Your task to perform on an android device: allow cookies in the chrome app Image 0: 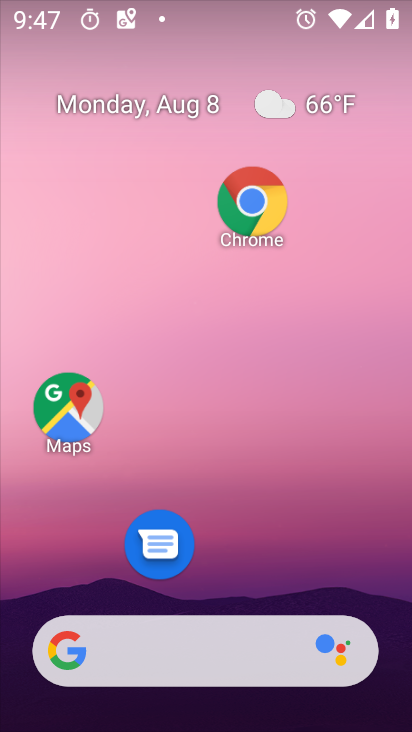
Step 0: press home button
Your task to perform on an android device: allow cookies in the chrome app Image 1: 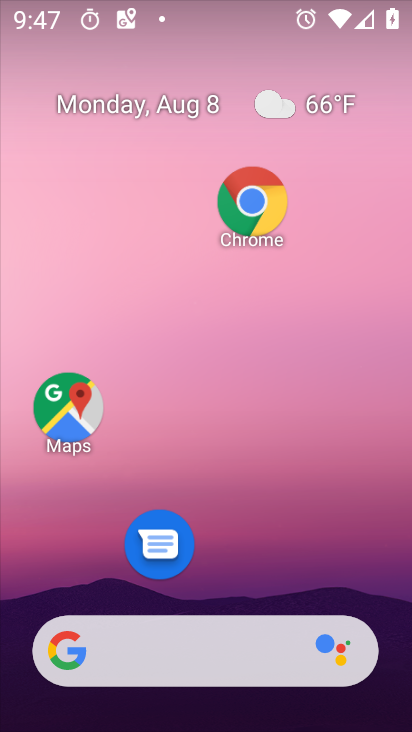
Step 1: drag from (294, 587) to (354, 10)
Your task to perform on an android device: allow cookies in the chrome app Image 2: 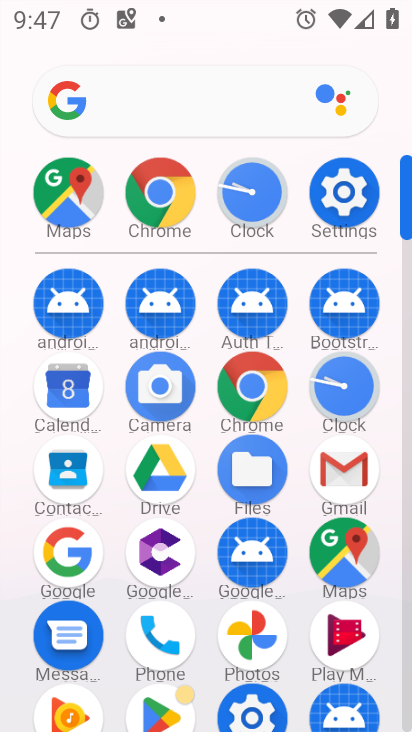
Step 2: click (154, 189)
Your task to perform on an android device: allow cookies in the chrome app Image 3: 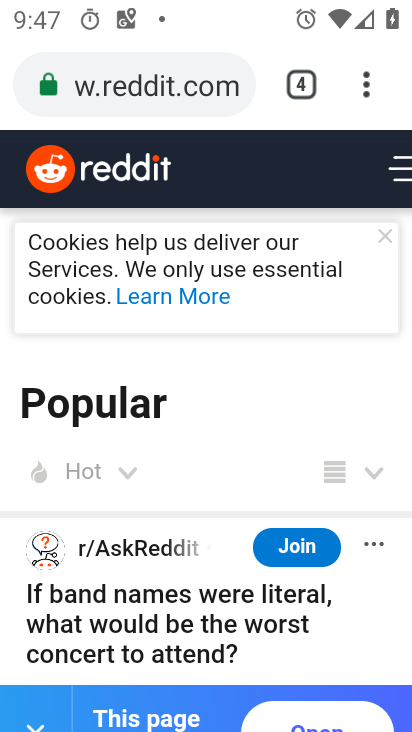
Step 3: press home button
Your task to perform on an android device: allow cookies in the chrome app Image 4: 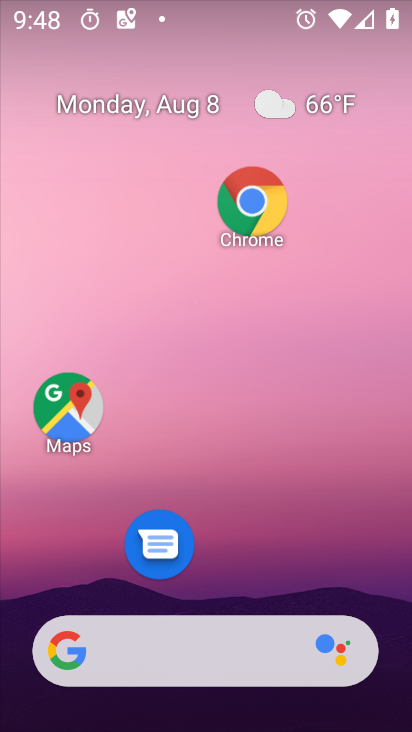
Step 4: drag from (272, 580) to (308, 1)
Your task to perform on an android device: allow cookies in the chrome app Image 5: 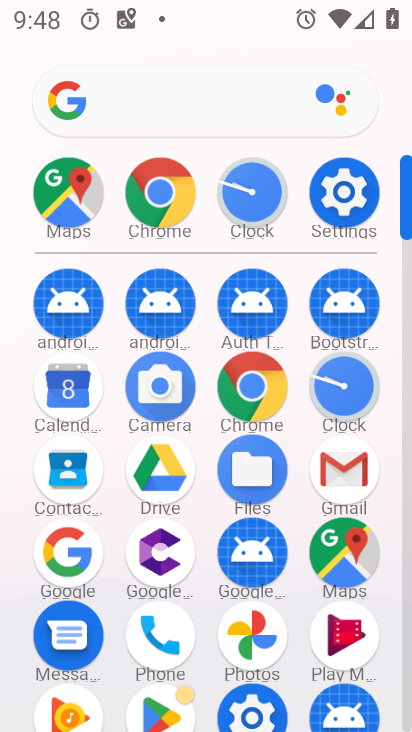
Step 5: click (247, 378)
Your task to perform on an android device: allow cookies in the chrome app Image 6: 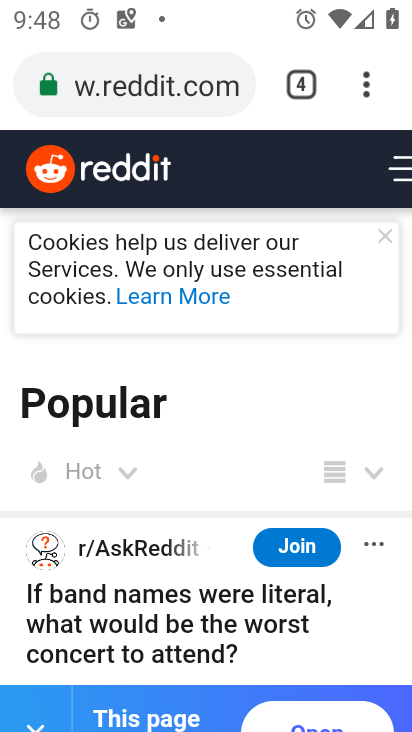
Step 6: click (368, 82)
Your task to perform on an android device: allow cookies in the chrome app Image 7: 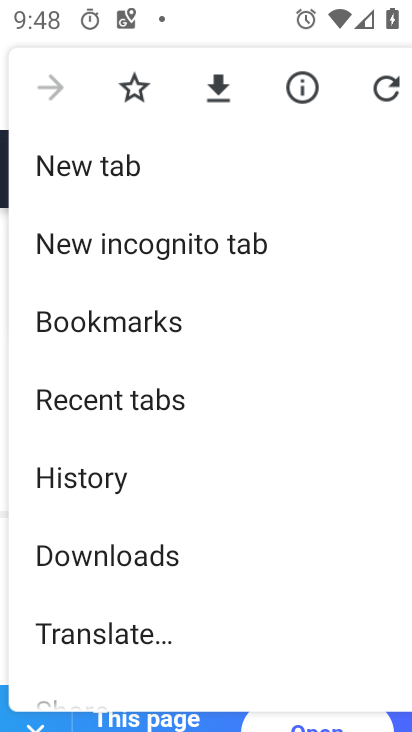
Step 7: drag from (224, 627) to (246, 131)
Your task to perform on an android device: allow cookies in the chrome app Image 8: 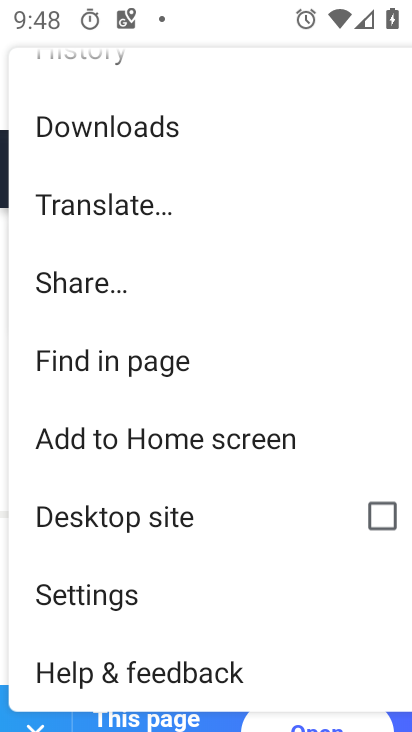
Step 8: click (150, 590)
Your task to perform on an android device: allow cookies in the chrome app Image 9: 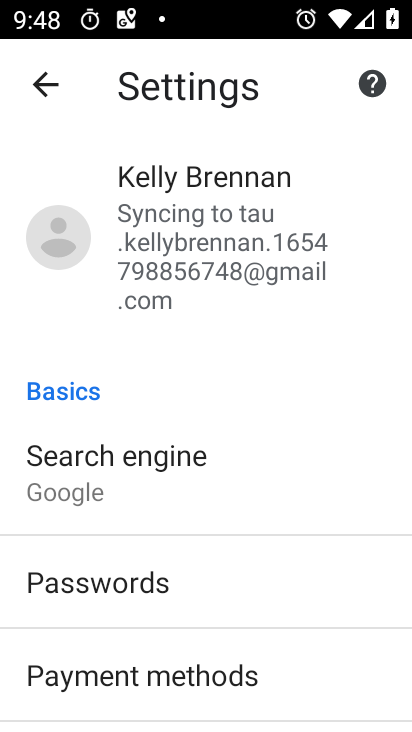
Step 9: drag from (283, 649) to (297, 88)
Your task to perform on an android device: allow cookies in the chrome app Image 10: 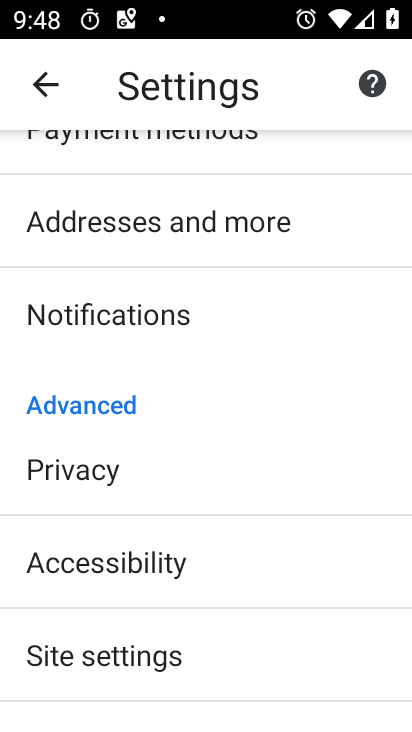
Step 10: click (200, 643)
Your task to perform on an android device: allow cookies in the chrome app Image 11: 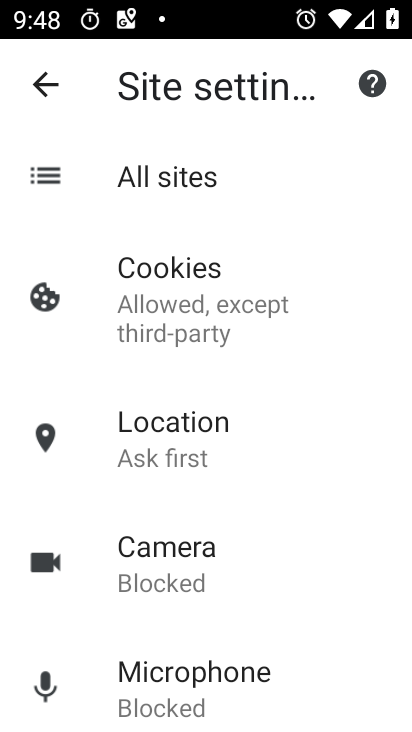
Step 11: click (106, 289)
Your task to perform on an android device: allow cookies in the chrome app Image 12: 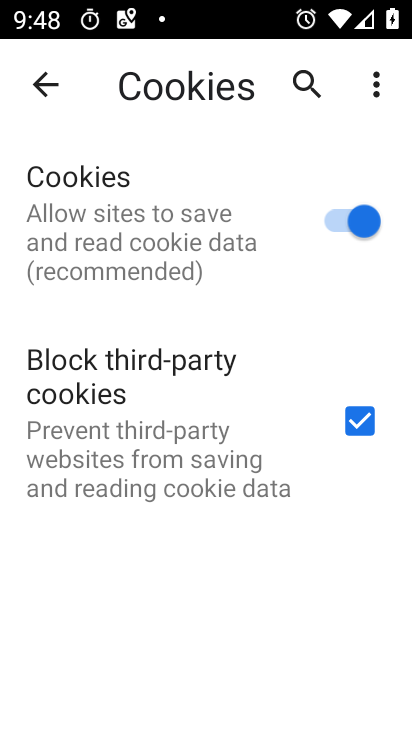
Step 12: task complete